Your task to perform on an android device: turn off sleep mode Image 0: 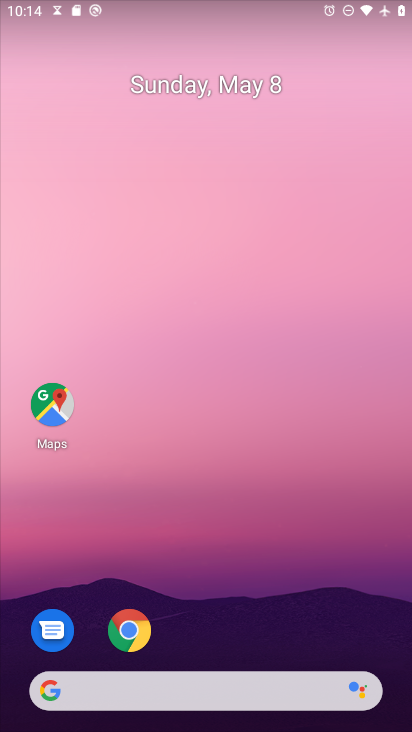
Step 0: drag from (181, 689) to (246, 186)
Your task to perform on an android device: turn off sleep mode Image 1: 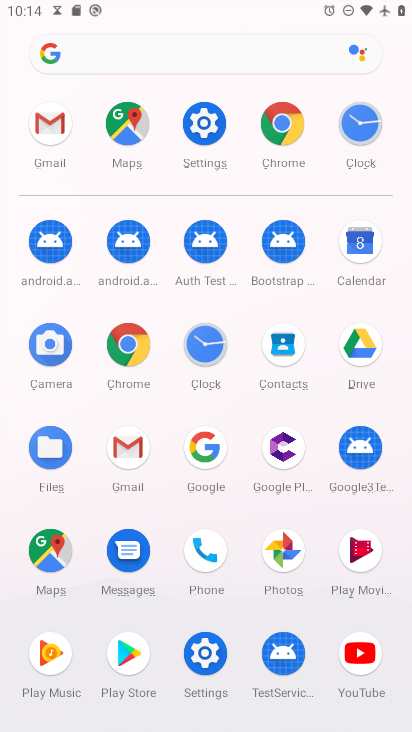
Step 1: click (203, 141)
Your task to perform on an android device: turn off sleep mode Image 2: 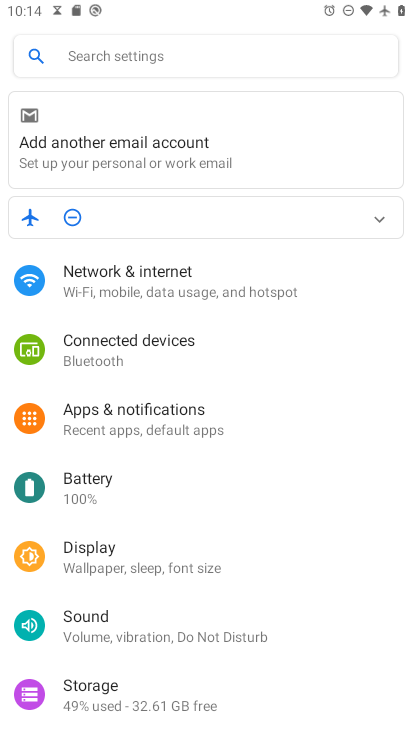
Step 2: click (74, 558)
Your task to perform on an android device: turn off sleep mode Image 3: 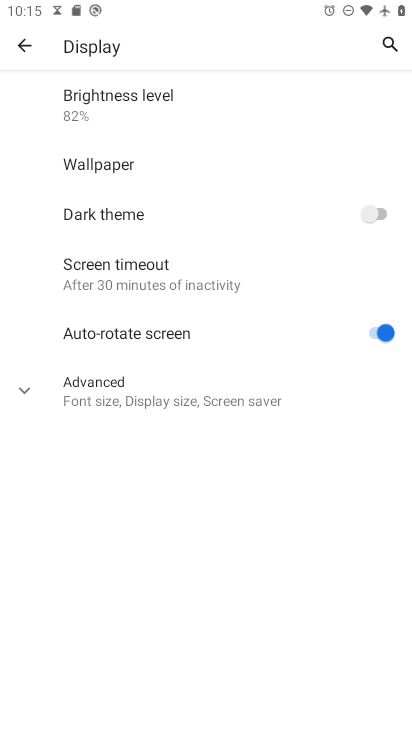
Step 3: task complete